Your task to perform on an android device: move a message to another label in the gmail app Image 0: 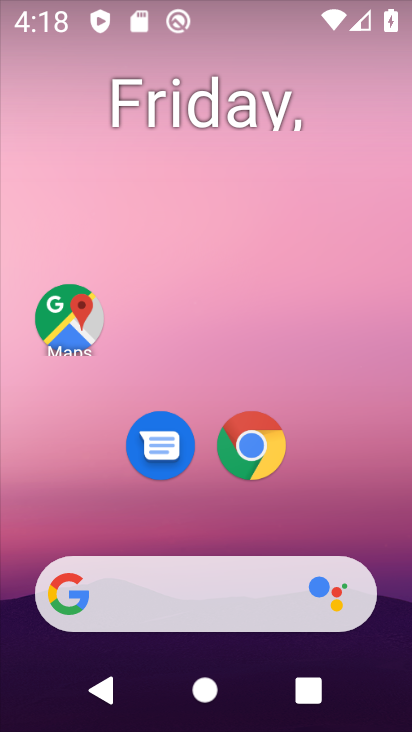
Step 0: drag from (278, 519) to (242, 93)
Your task to perform on an android device: move a message to another label in the gmail app Image 1: 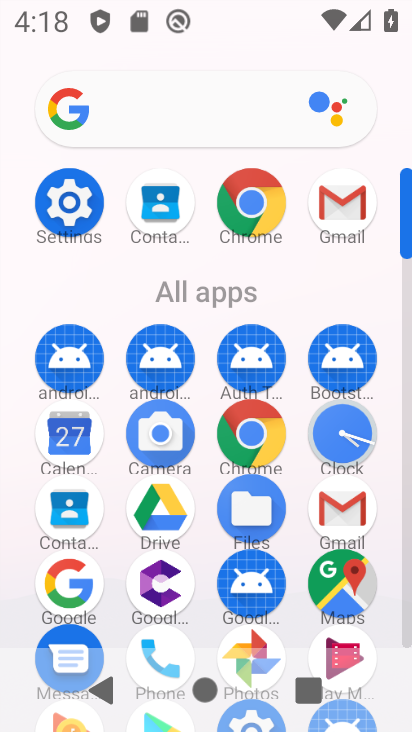
Step 1: click (352, 212)
Your task to perform on an android device: move a message to another label in the gmail app Image 2: 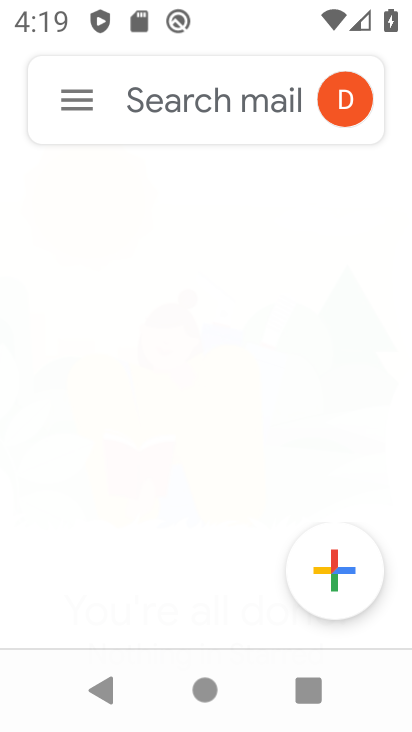
Step 2: click (83, 104)
Your task to perform on an android device: move a message to another label in the gmail app Image 3: 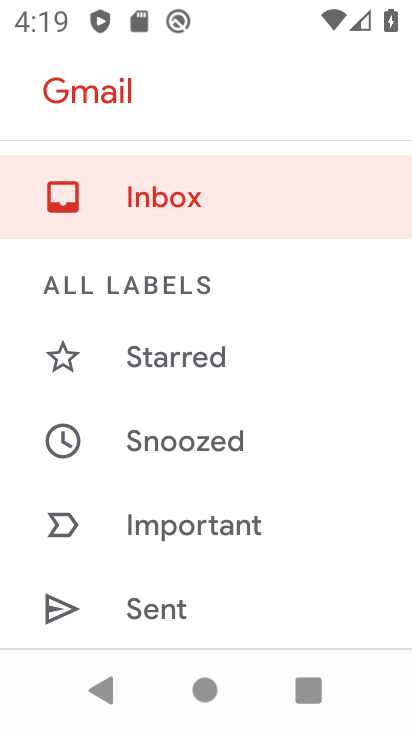
Step 3: drag from (244, 608) to (279, 182)
Your task to perform on an android device: move a message to another label in the gmail app Image 4: 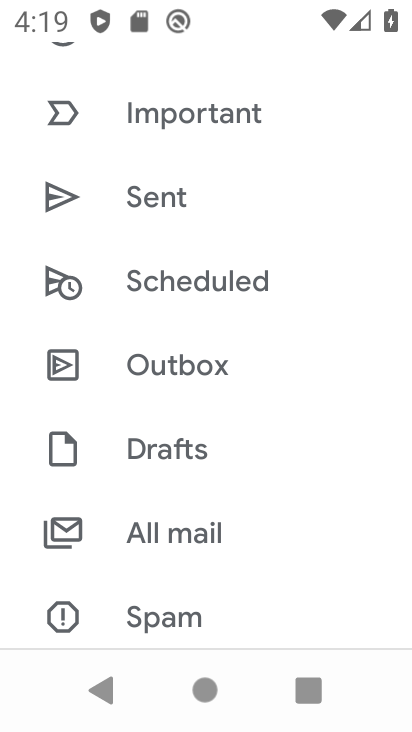
Step 4: drag from (334, 481) to (316, 183)
Your task to perform on an android device: move a message to another label in the gmail app Image 5: 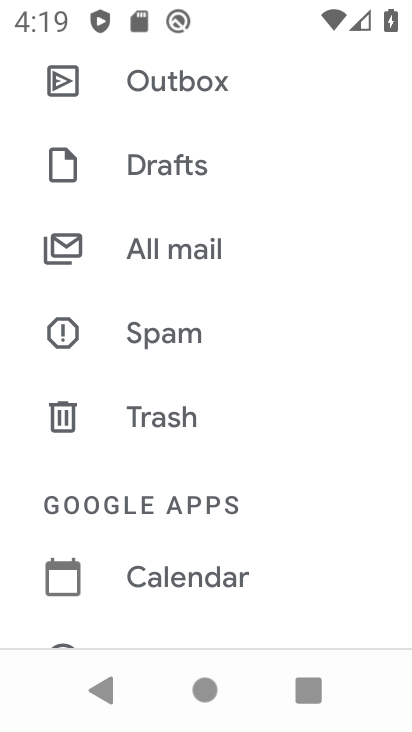
Step 5: click (176, 253)
Your task to perform on an android device: move a message to another label in the gmail app Image 6: 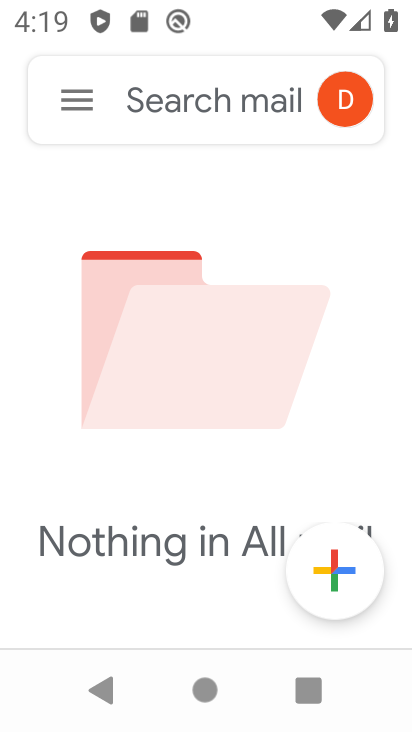
Step 6: task complete